Your task to perform on an android device: change notification settings in the gmail app Image 0: 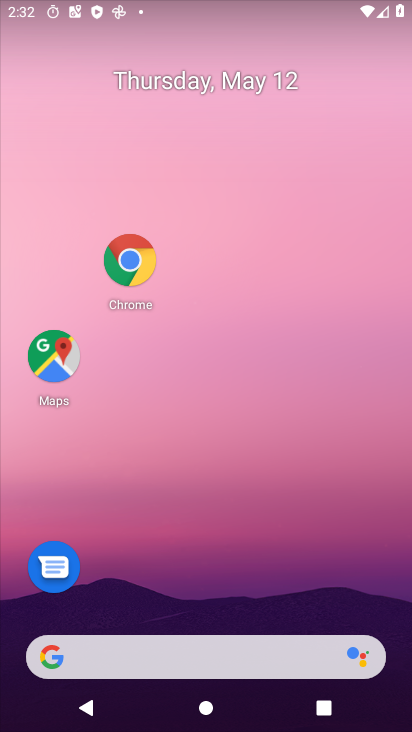
Step 0: drag from (186, 634) to (245, 240)
Your task to perform on an android device: change notification settings in the gmail app Image 1: 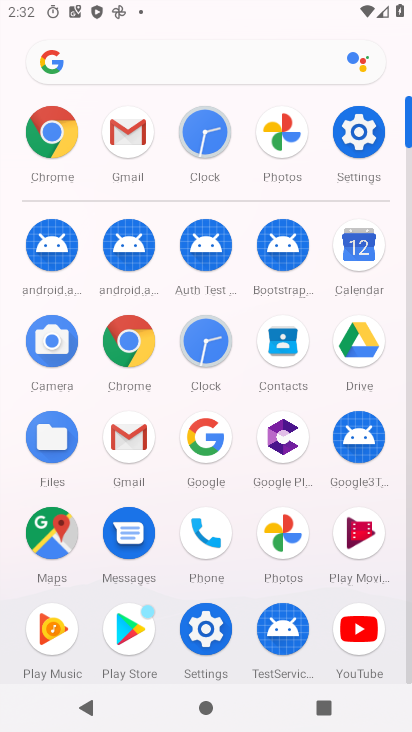
Step 1: click (123, 137)
Your task to perform on an android device: change notification settings in the gmail app Image 2: 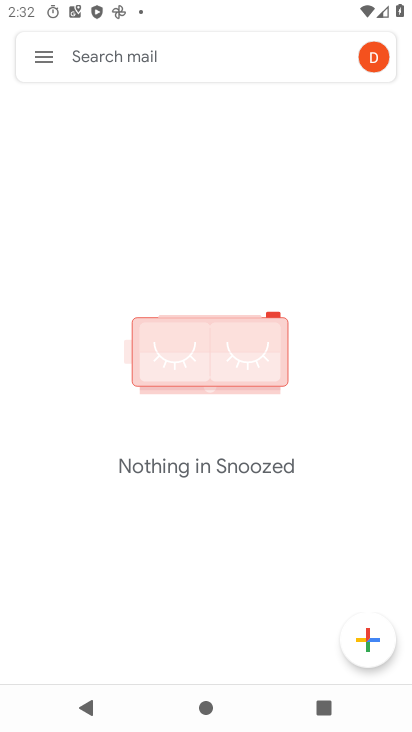
Step 2: click (36, 56)
Your task to perform on an android device: change notification settings in the gmail app Image 3: 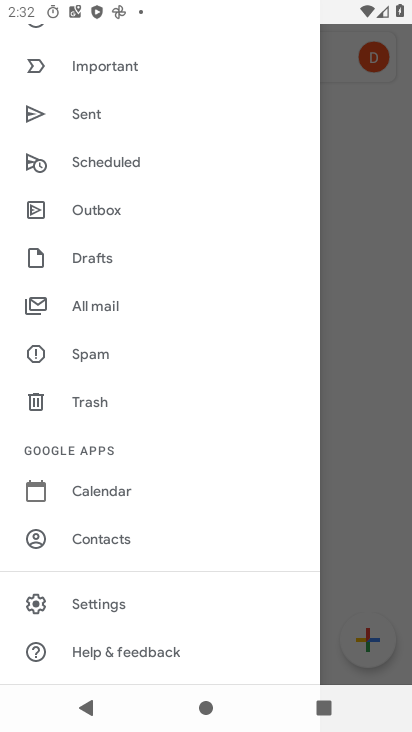
Step 3: click (114, 606)
Your task to perform on an android device: change notification settings in the gmail app Image 4: 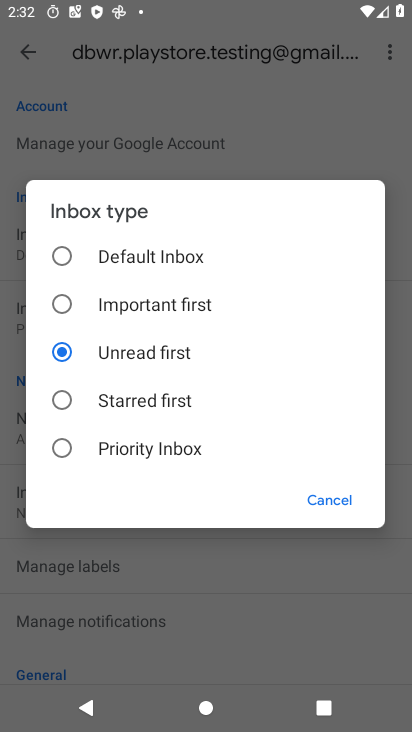
Step 4: click (308, 500)
Your task to perform on an android device: change notification settings in the gmail app Image 5: 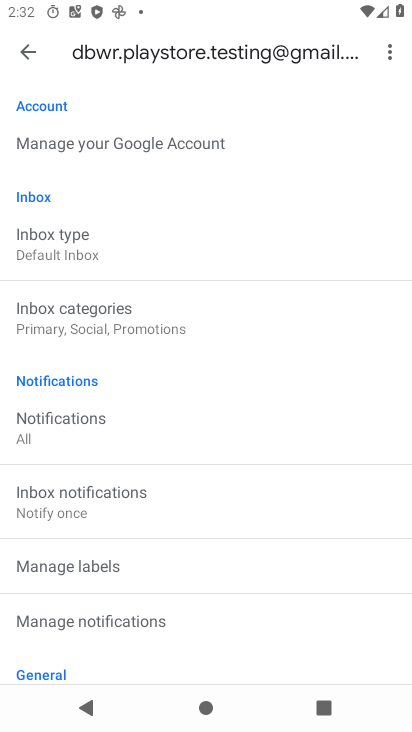
Step 5: click (76, 416)
Your task to perform on an android device: change notification settings in the gmail app Image 6: 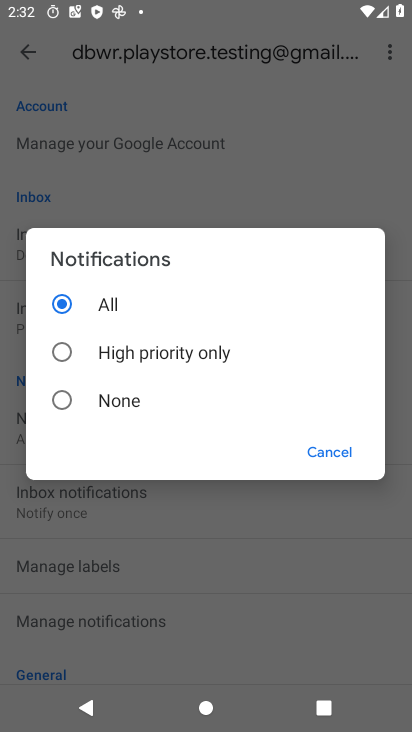
Step 6: click (129, 352)
Your task to perform on an android device: change notification settings in the gmail app Image 7: 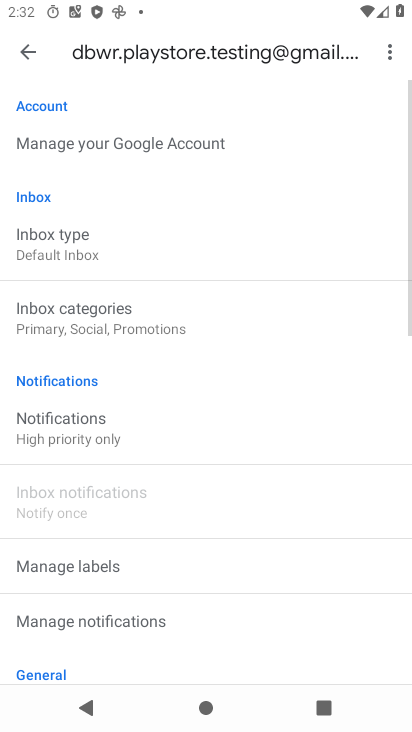
Step 7: task complete